Your task to perform on an android device: Open settings on Google Maps Image 0: 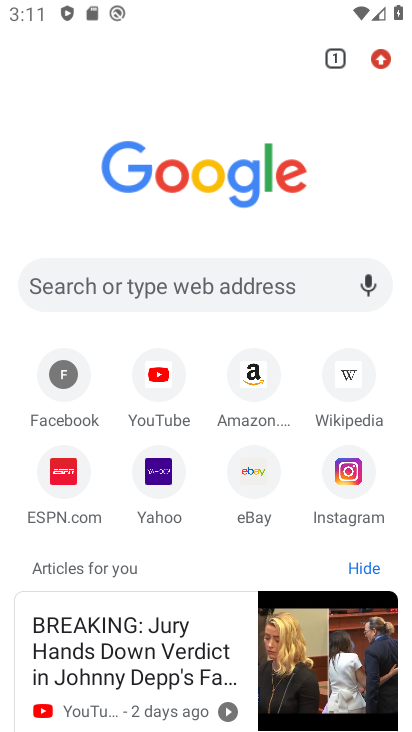
Step 0: press home button
Your task to perform on an android device: Open settings on Google Maps Image 1: 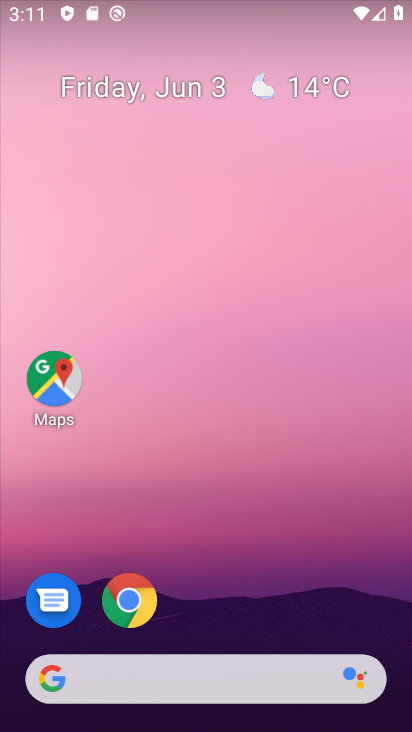
Step 1: click (63, 395)
Your task to perform on an android device: Open settings on Google Maps Image 2: 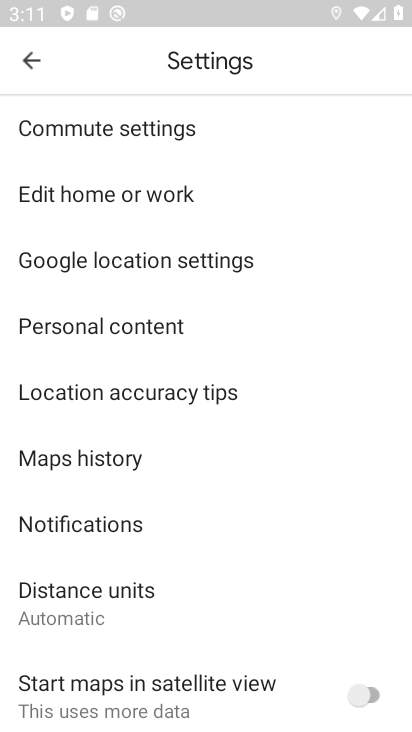
Step 2: task complete